Your task to perform on an android device: check android version Image 0: 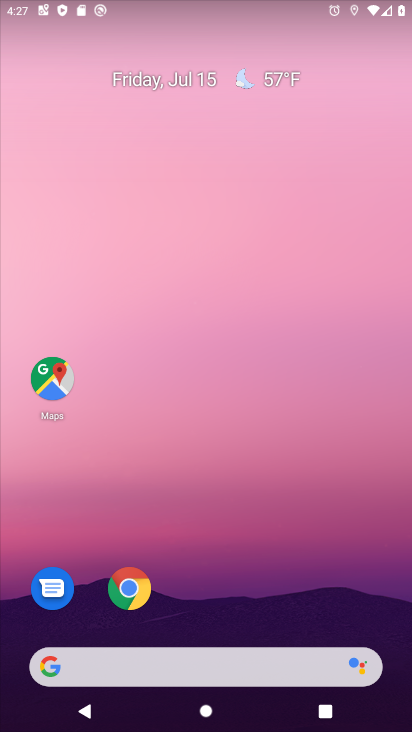
Step 0: click (282, 150)
Your task to perform on an android device: check android version Image 1: 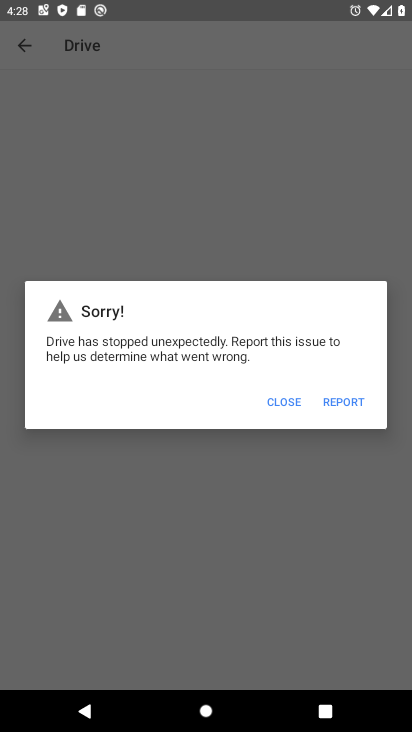
Step 1: press home button
Your task to perform on an android device: check android version Image 2: 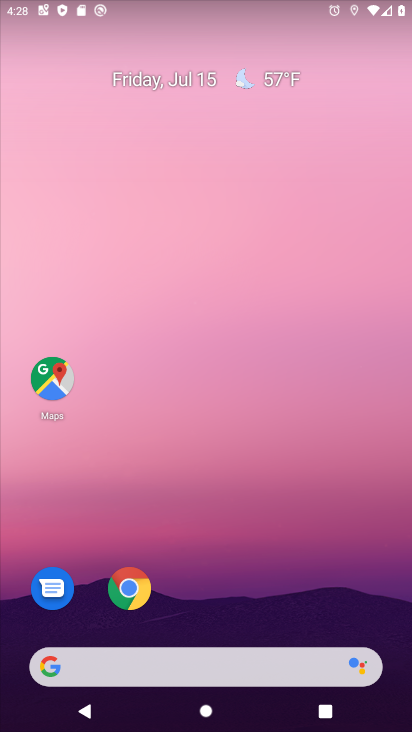
Step 2: drag from (200, 667) to (181, 151)
Your task to perform on an android device: check android version Image 3: 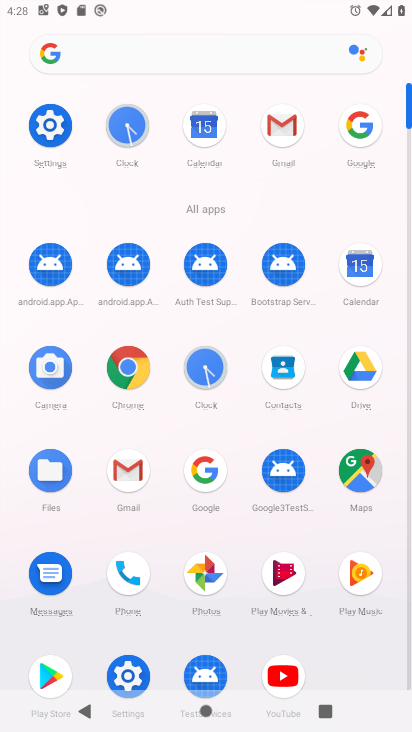
Step 3: click (125, 672)
Your task to perform on an android device: check android version Image 4: 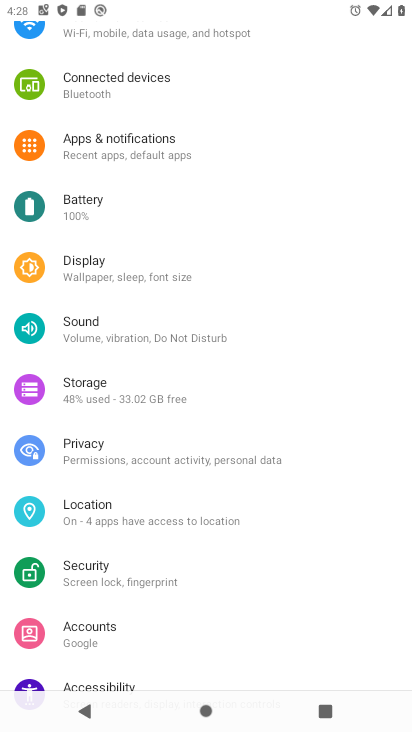
Step 4: drag from (136, 647) to (120, 501)
Your task to perform on an android device: check android version Image 5: 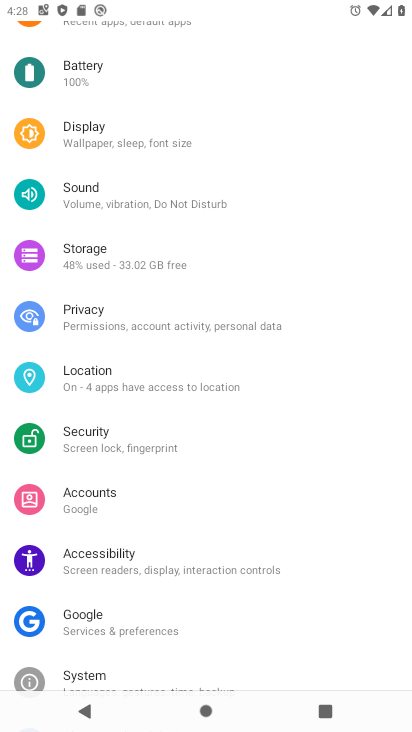
Step 5: drag from (129, 619) to (138, 446)
Your task to perform on an android device: check android version Image 6: 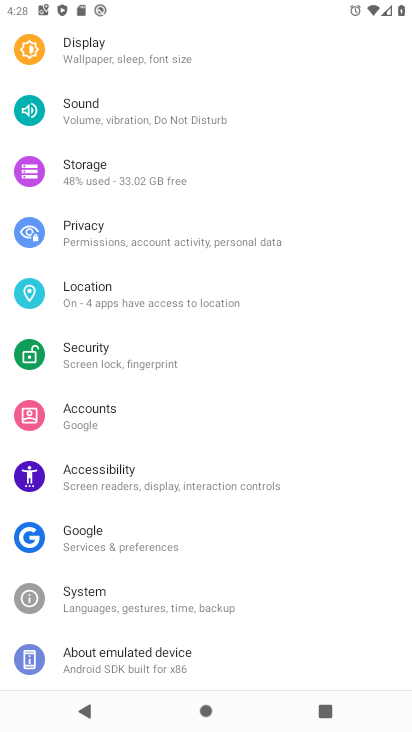
Step 6: click (113, 651)
Your task to perform on an android device: check android version Image 7: 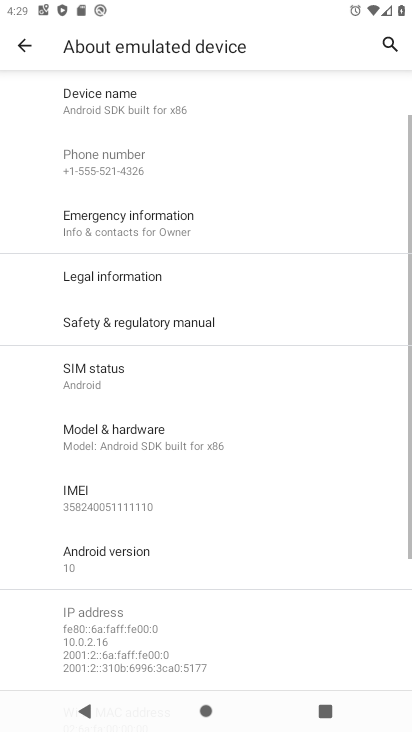
Step 7: click (116, 549)
Your task to perform on an android device: check android version Image 8: 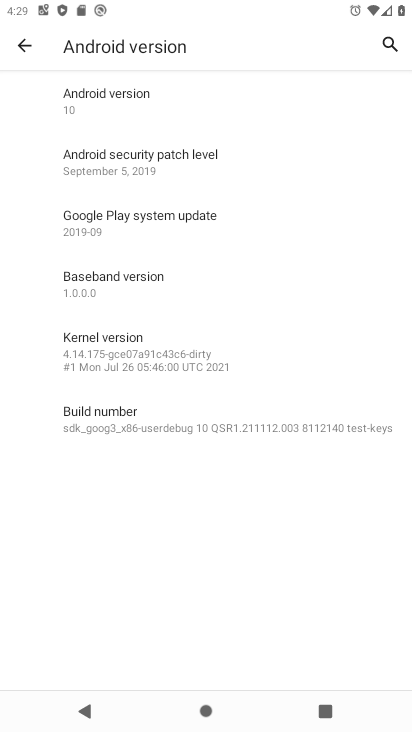
Step 8: task complete